Your task to perform on an android device: Open location settings Image 0: 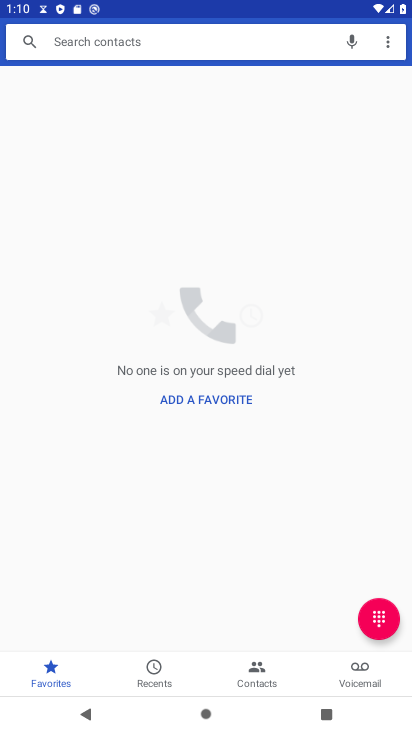
Step 0: press home button
Your task to perform on an android device: Open location settings Image 1: 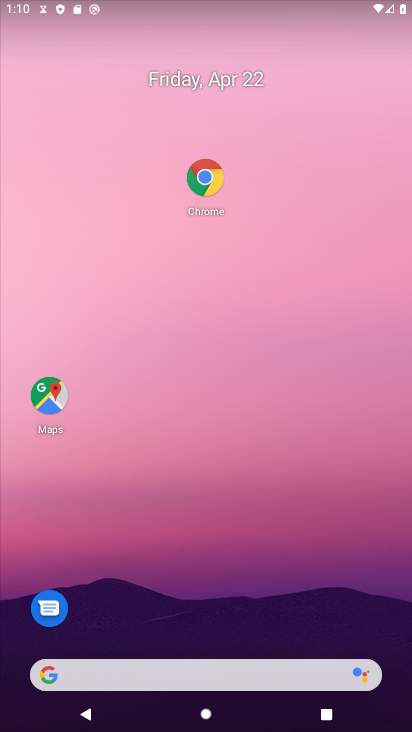
Step 1: drag from (160, 679) to (316, 175)
Your task to perform on an android device: Open location settings Image 2: 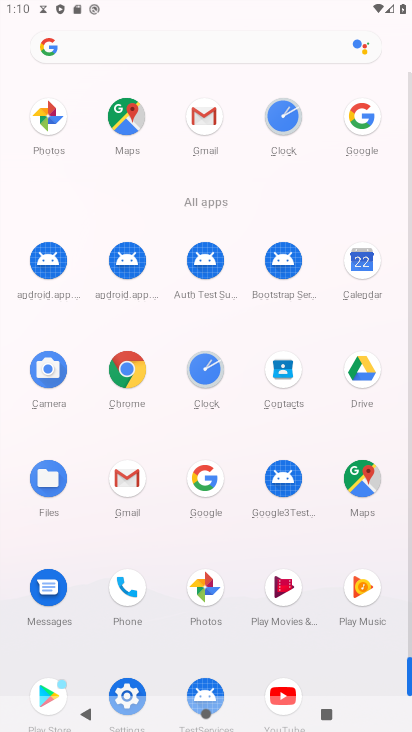
Step 2: drag from (139, 642) to (259, 336)
Your task to perform on an android device: Open location settings Image 3: 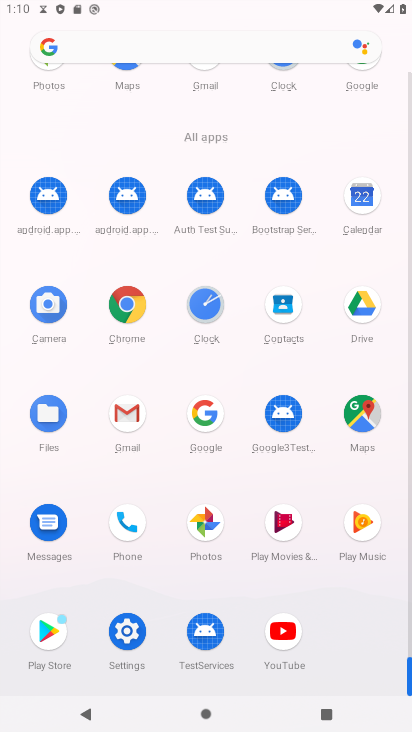
Step 3: click (129, 626)
Your task to perform on an android device: Open location settings Image 4: 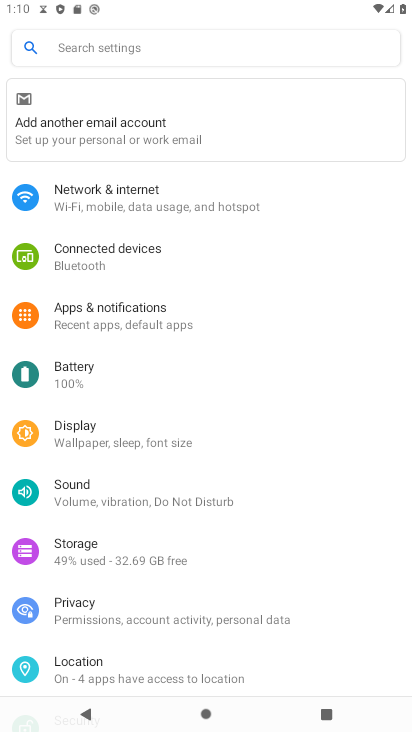
Step 4: click (73, 661)
Your task to perform on an android device: Open location settings Image 5: 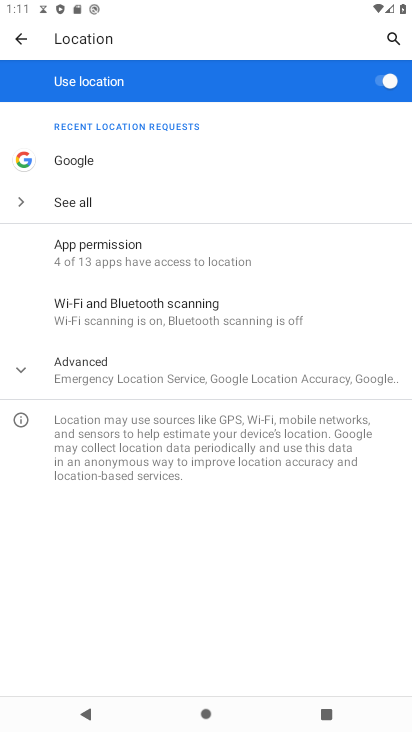
Step 5: task complete